Your task to perform on an android device: check out phone information Image 0: 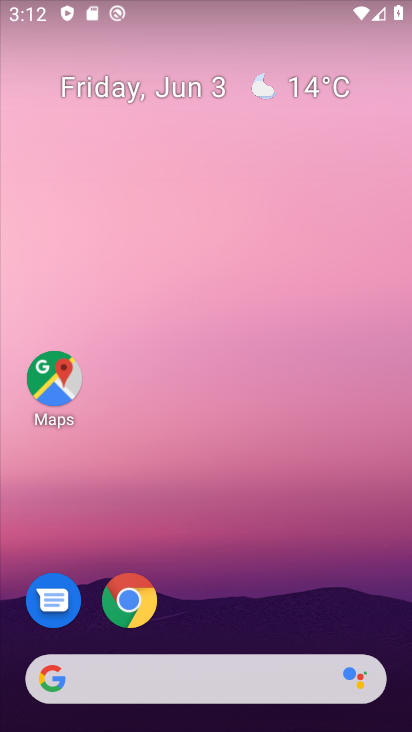
Step 0: drag from (249, 572) to (245, 189)
Your task to perform on an android device: check out phone information Image 1: 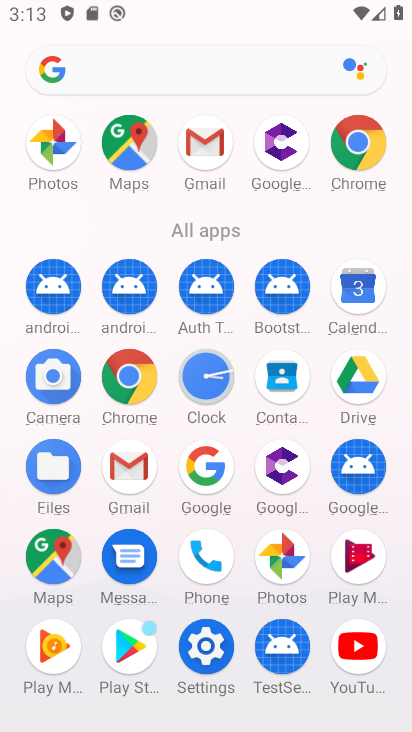
Step 1: click (197, 631)
Your task to perform on an android device: check out phone information Image 2: 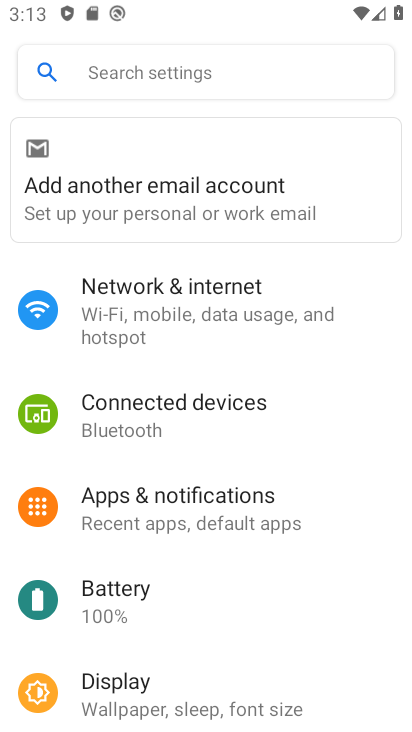
Step 2: drag from (248, 633) to (247, 345)
Your task to perform on an android device: check out phone information Image 3: 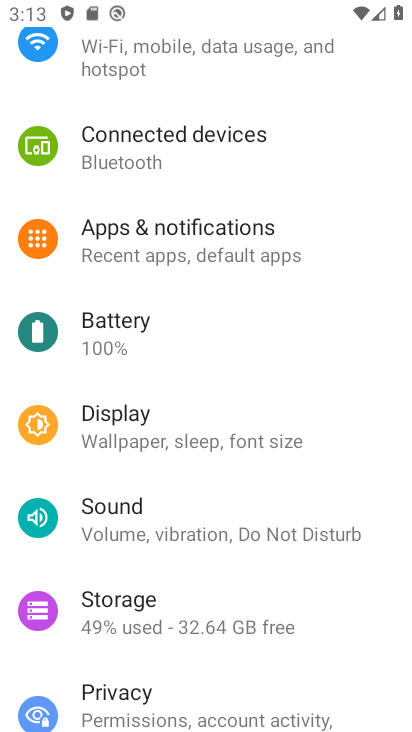
Step 3: drag from (225, 627) to (235, 261)
Your task to perform on an android device: check out phone information Image 4: 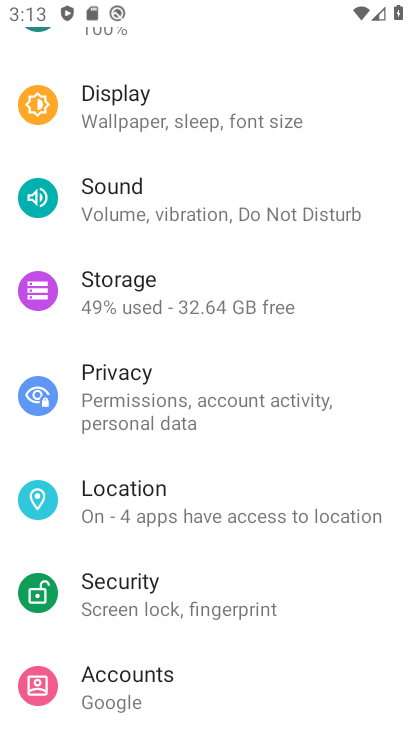
Step 4: drag from (174, 630) to (215, 287)
Your task to perform on an android device: check out phone information Image 5: 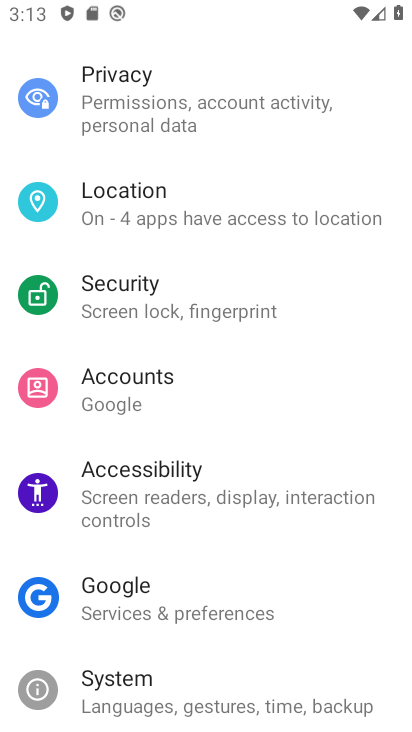
Step 5: drag from (160, 631) to (184, 309)
Your task to perform on an android device: check out phone information Image 6: 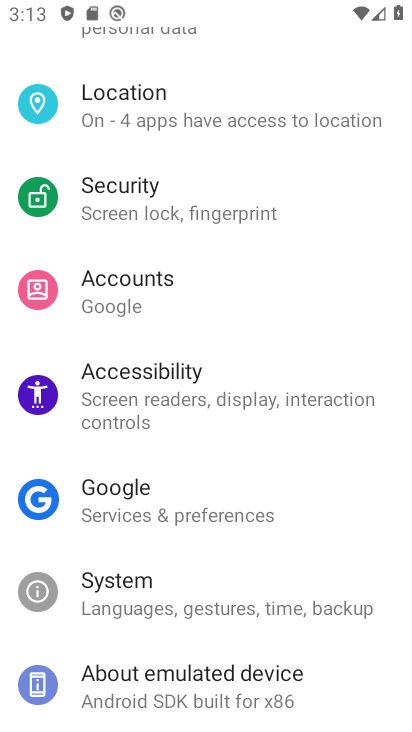
Step 6: click (145, 678)
Your task to perform on an android device: check out phone information Image 7: 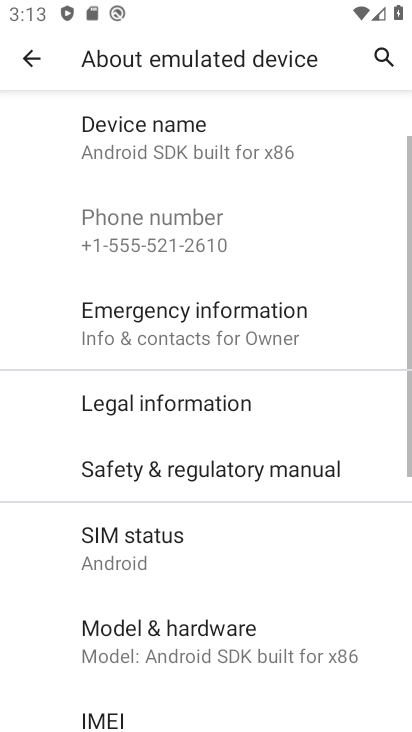
Step 7: task complete